Your task to perform on an android device: refresh tabs in the chrome app Image 0: 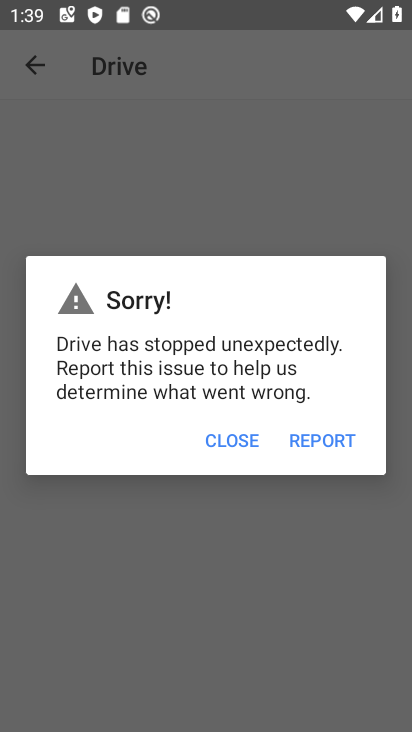
Step 0: press home button
Your task to perform on an android device: refresh tabs in the chrome app Image 1: 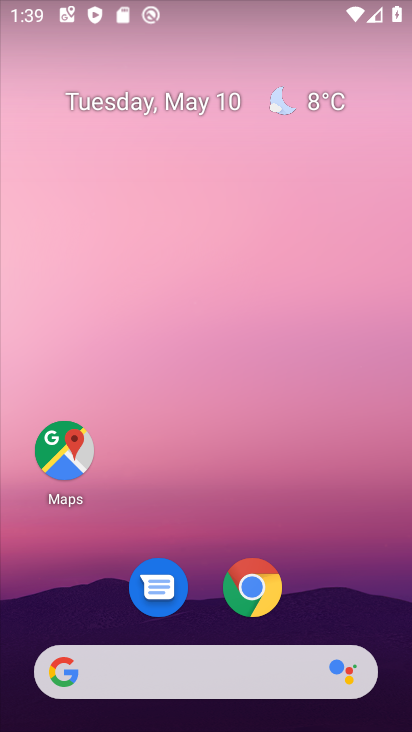
Step 1: click (268, 577)
Your task to perform on an android device: refresh tabs in the chrome app Image 2: 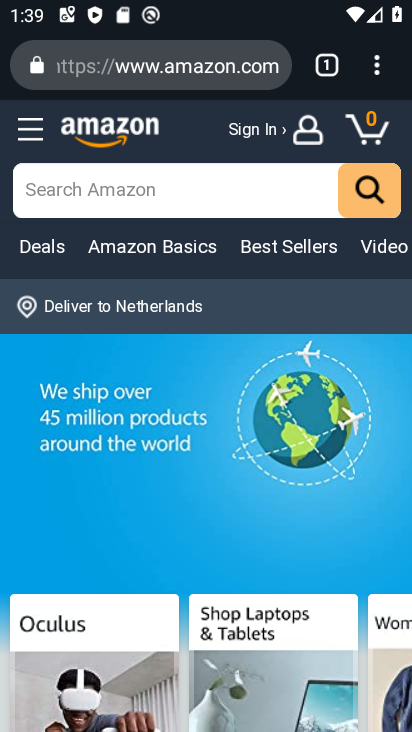
Step 2: click (377, 58)
Your task to perform on an android device: refresh tabs in the chrome app Image 3: 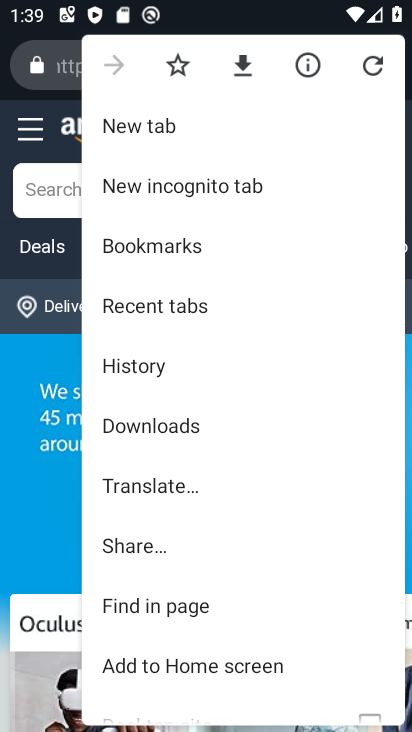
Step 3: click (379, 63)
Your task to perform on an android device: refresh tabs in the chrome app Image 4: 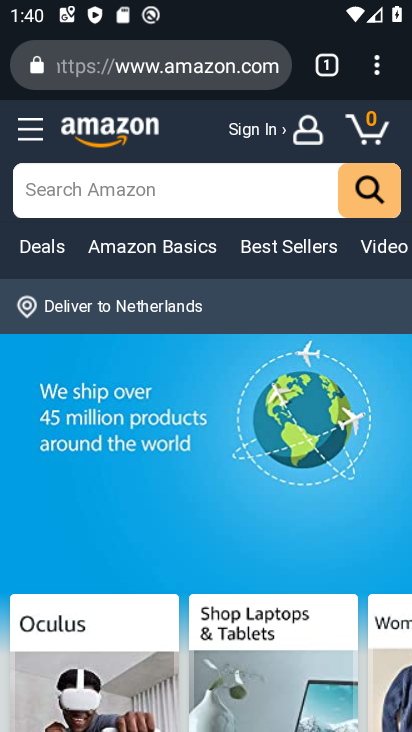
Step 4: task complete